Your task to perform on an android device: Open Google Chrome and click the shortcut for Amazon.com Image 0: 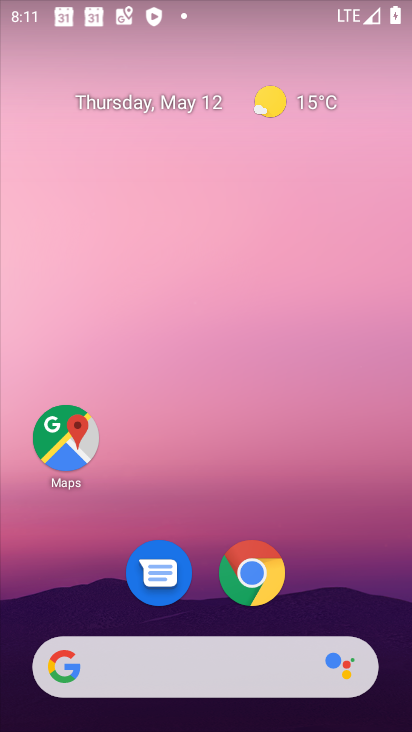
Step 0: click (254, 581)
Your task to perform on an android device: Open Google Chrome and click the shortcut for Amazon.com Image 1: 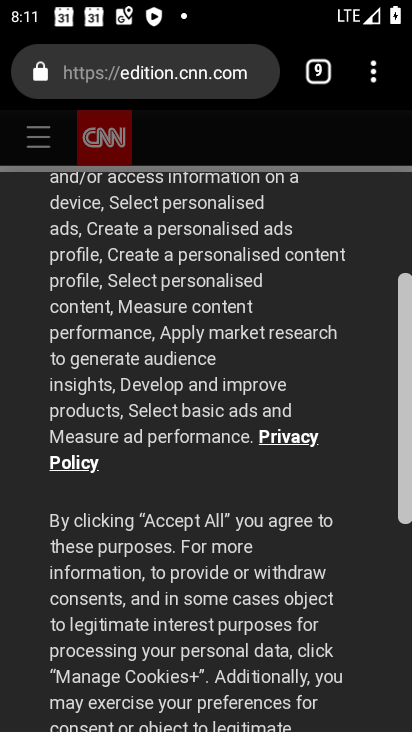
Step 1: click (375, 72)
Your task to perform on an android device: Open Google Chrome and click the shortcut for Amazon.com Image 2: 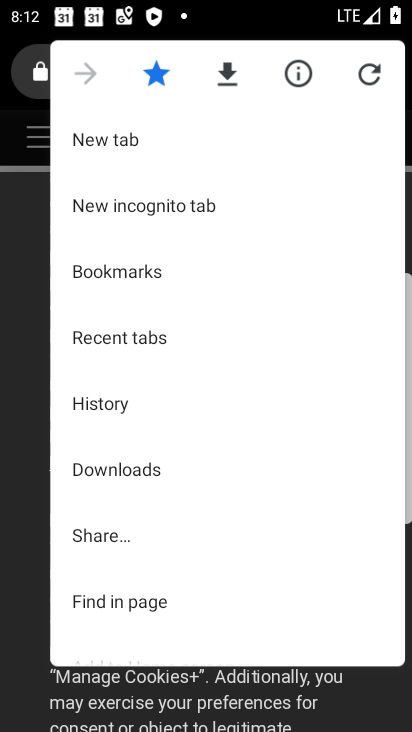
Step 2: click (114, 137)
Your task to perform on an android device: Open Google Chrome and click the shortcut for Amazon.com Image 3: 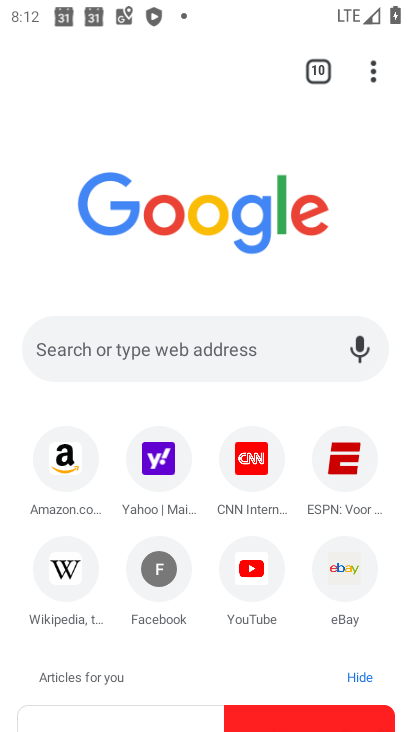
Step 3: click (75, 452)
Your task to perform on an android device: Open Google Chrome and click the shortcut for Amazon.com Image 4: 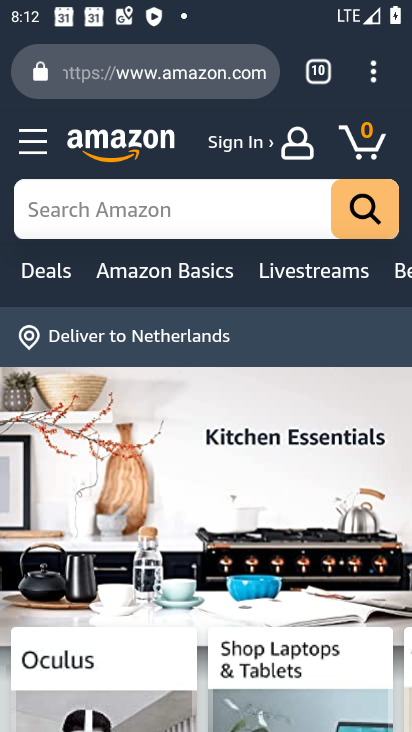
Step 4: task complete